Your task to perform on an android device: install app "DoorDash - Dasher" Image 0: 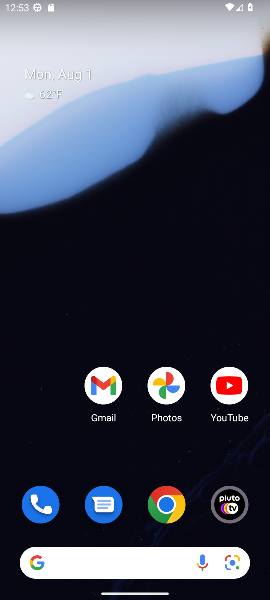
Step 0: drag from (155, 565) to (122, 113)
Your task to perform on an android device: install app "DoorDash - Dasher" Image 1: 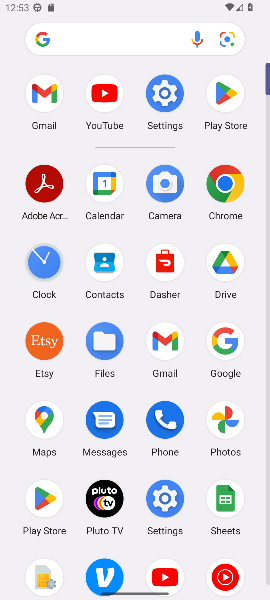
Step 1: click (224, 97)
Your task to perform on an android device: install app "DoorDash - Dasher" Image 2: 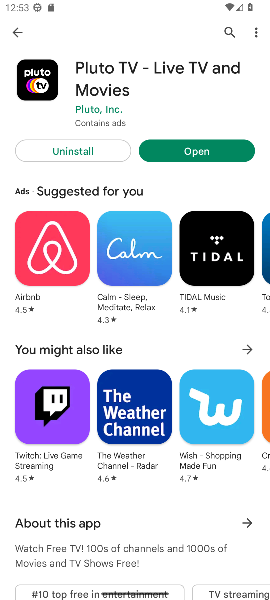
Step 2: click (230, 26)
Your task to perform on an android device: install app "DoorDash - Dasher" Image 3: 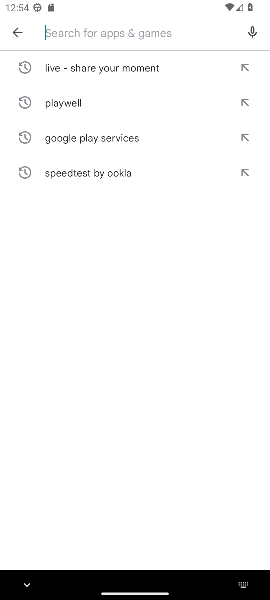
Step 3: type "doordash - dasher"
Your task to perform on an android device: install app "DoorDash - Dasher" Image 4: 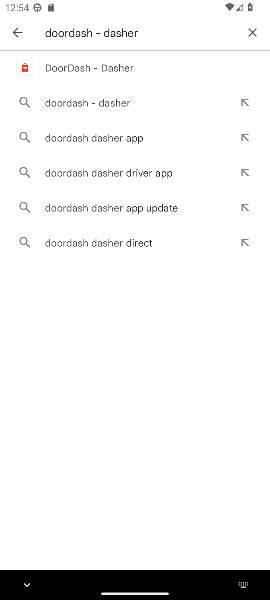
Step 4: click (114, 66)
Your task to perform on an android device: install app "DoorDash - Dasher" Image 5: 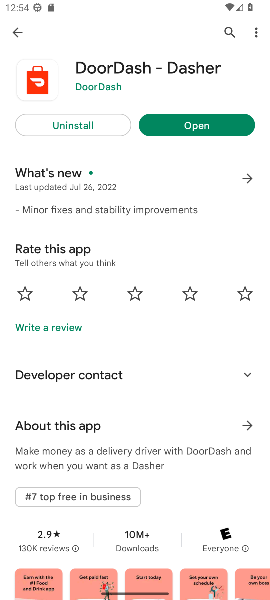
Step 5: task complete